Your task to perform on an android device: Go to Android settings Image 0: 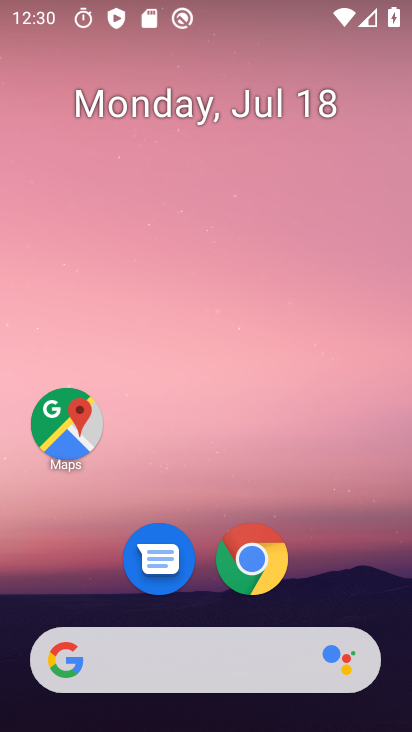
Step 0: drag from (39, 582) to (172, 15)
Your task to perform on an android device: Go to Android settings Image 1: 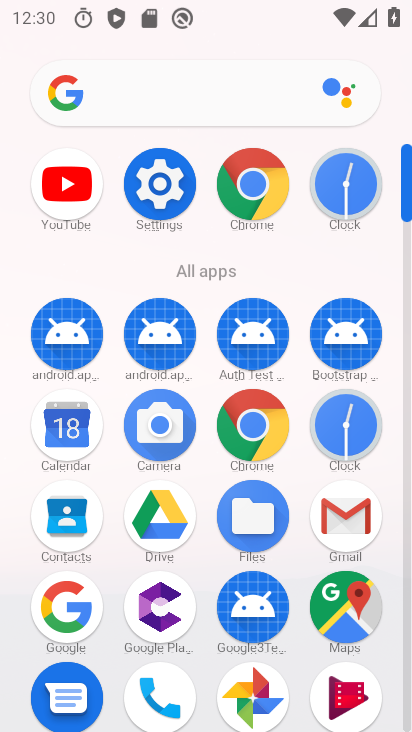
Step 1: click (161, 181)
Your task to perform on an android device: Go to Android settings Image 2: 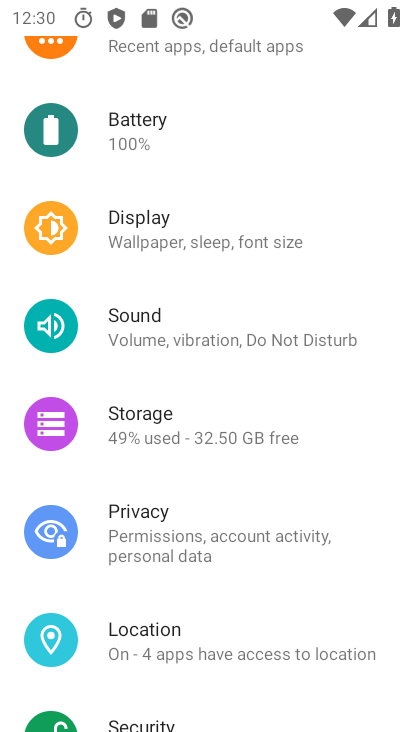
Step 2: drag from (212, 182) to (189, 729)
Your task to perform on an android device: Go to Android settings Image 3: 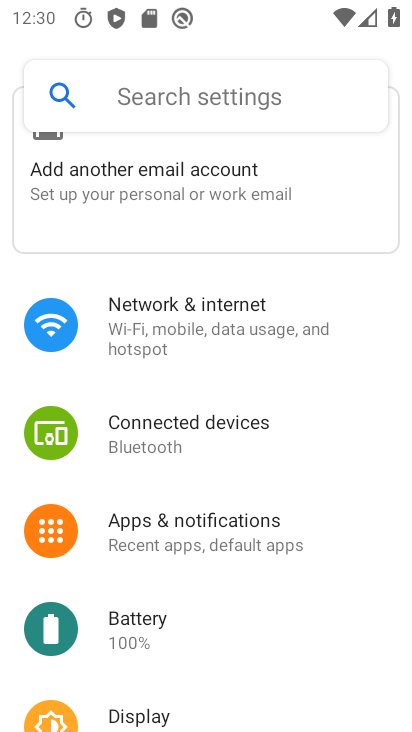
Step 3: drag from (188, 652) to (302, 11)
Your task to perform on an android device: Go to Android settings Image 4: 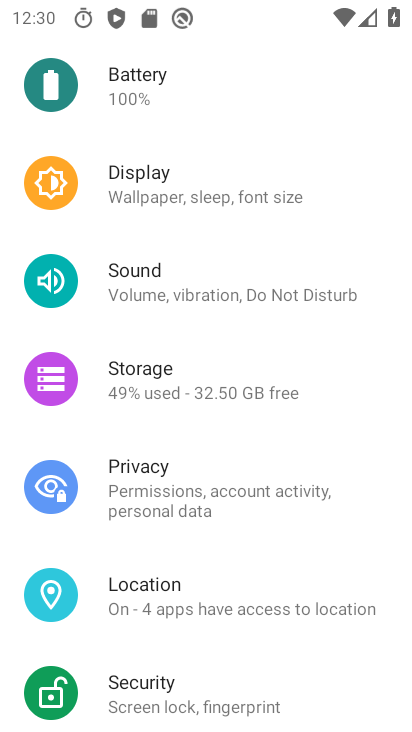
Step 4: drag from (206, 685) to (294, 8)
Your task to perform on an android device: Go to Android settings Image 5: 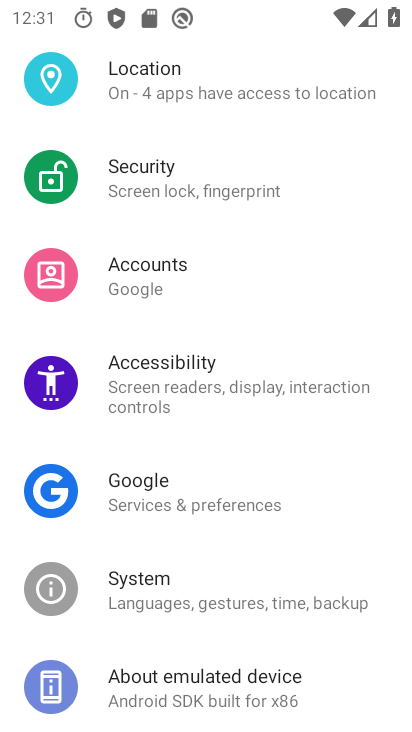
Step 5: click (174, 677)
Your task to perform on an android device: Go to Android settings Image 6: 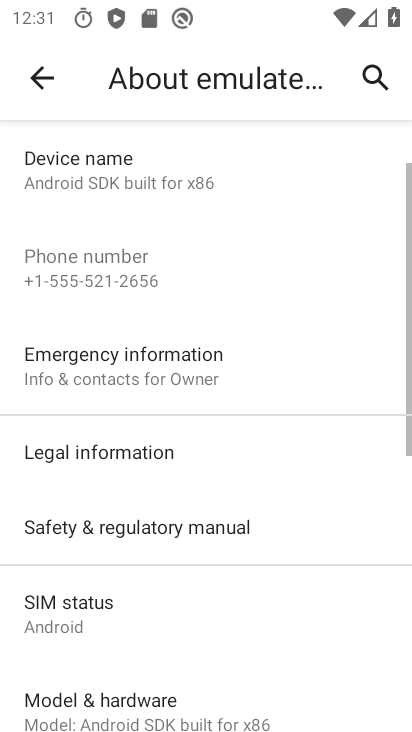
Step 6: drag from (198, 629) to (295, 131)
Your task to perform on an android device: Go to Android settings Image 7: 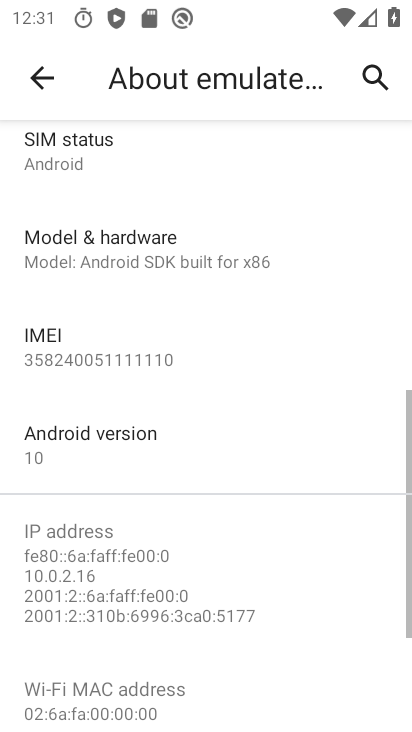
Step 7: click (152, 427)
Your task to perform on an android device: Go to Android settings Image 8: 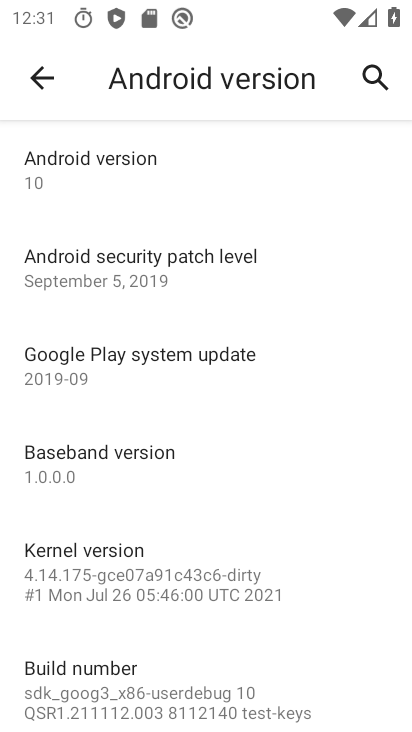
Step 8: click (130, 151)
Your task to perform on an android device: Go to Android settings Image 9: 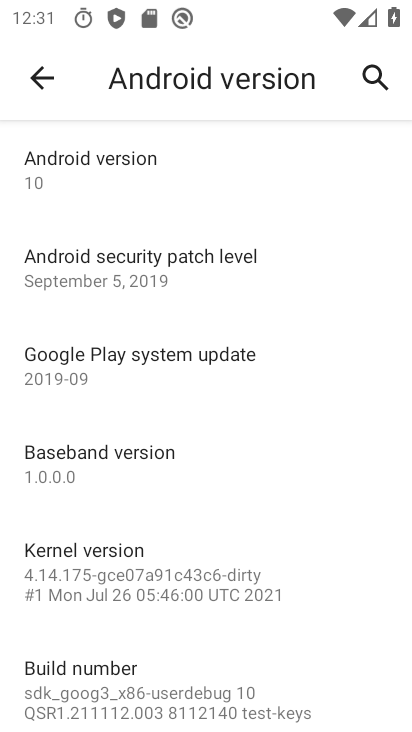
Step 9: task complete